Your task to perform on an android device: Open Youtube and go to the subscriptions tab Image 0: 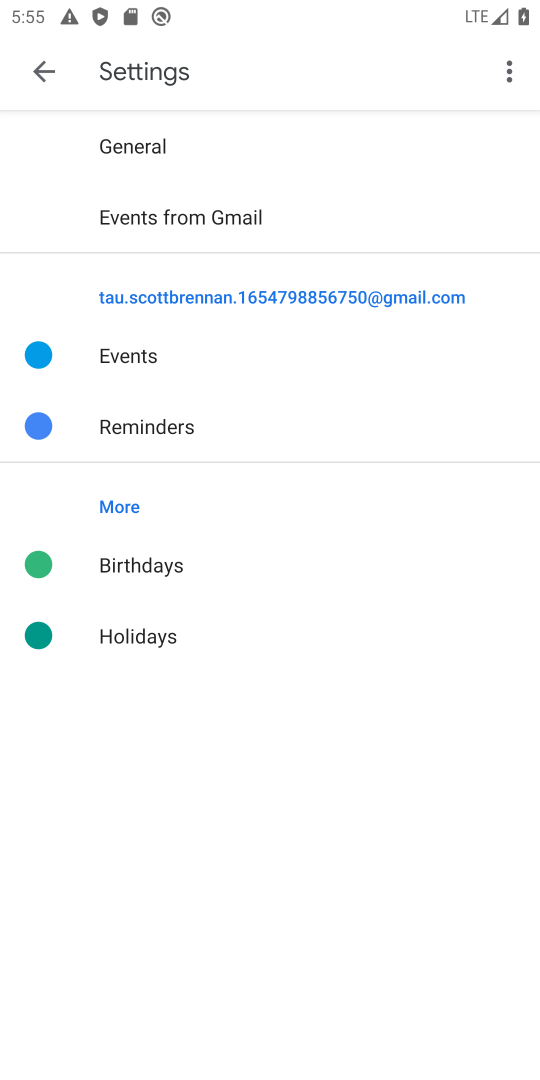
Step 0: press home button
Your task to perform on an android device: Open Youtube and go to the subscriptions tab Image 1: 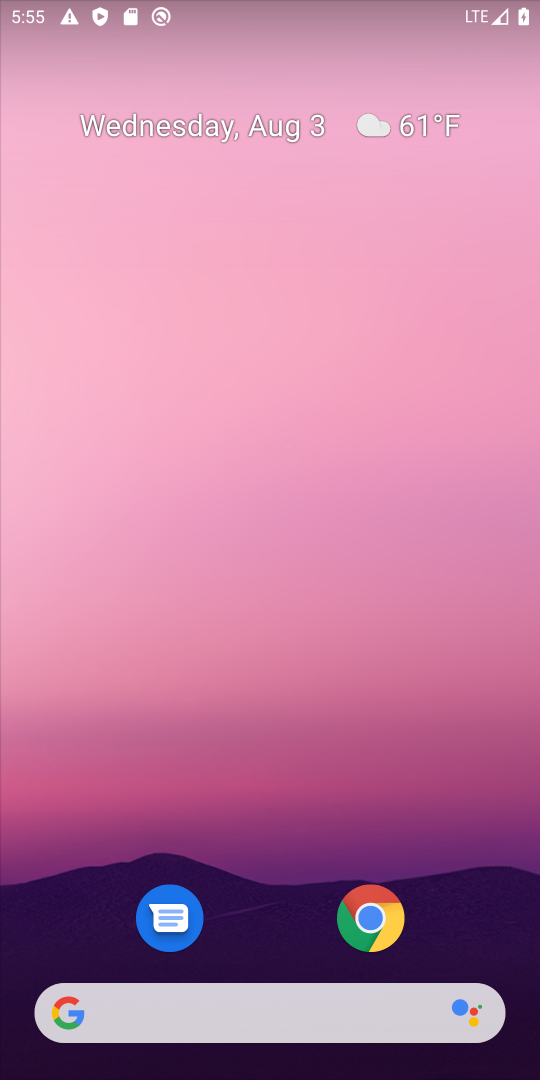
Step 1: drag from (182, 945) to (215, 292)
Your task to perform on an android device: Open Youtube and go to the subscriptions tab Image 2: 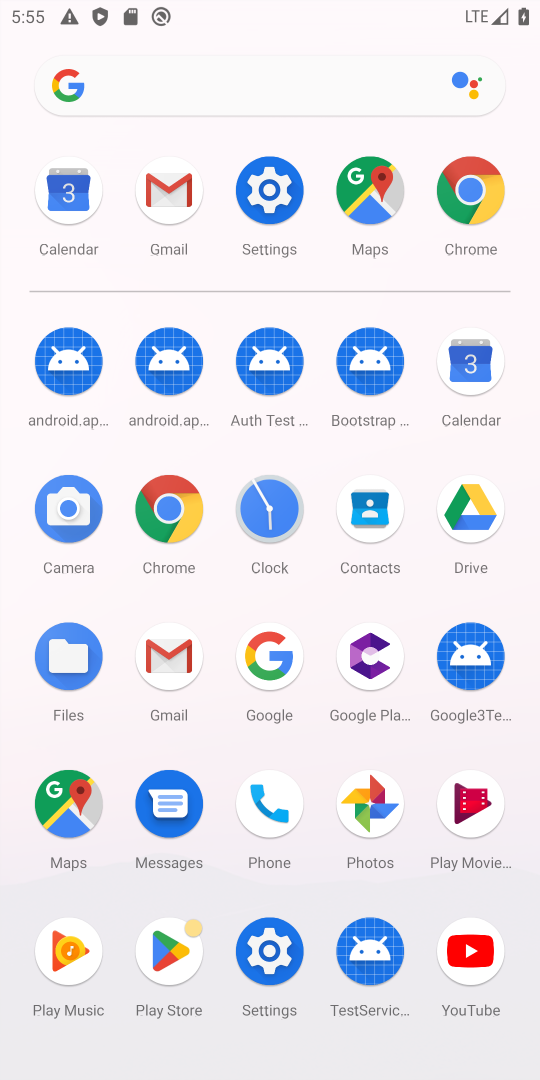
Step 2: click (462, 960)
Your task to perform on an android device: Open Youtube and go to the subscriptions tab Image 3: 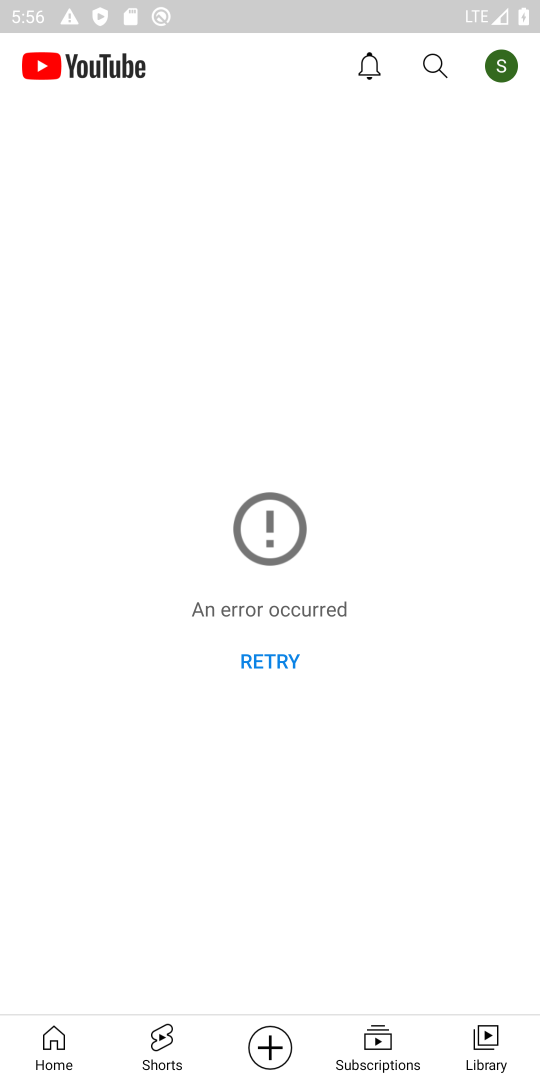
Step 3: click (379, 1024)
Your task to perform on an android device: Open Youtube and go to the subscriptions tab Image 4: 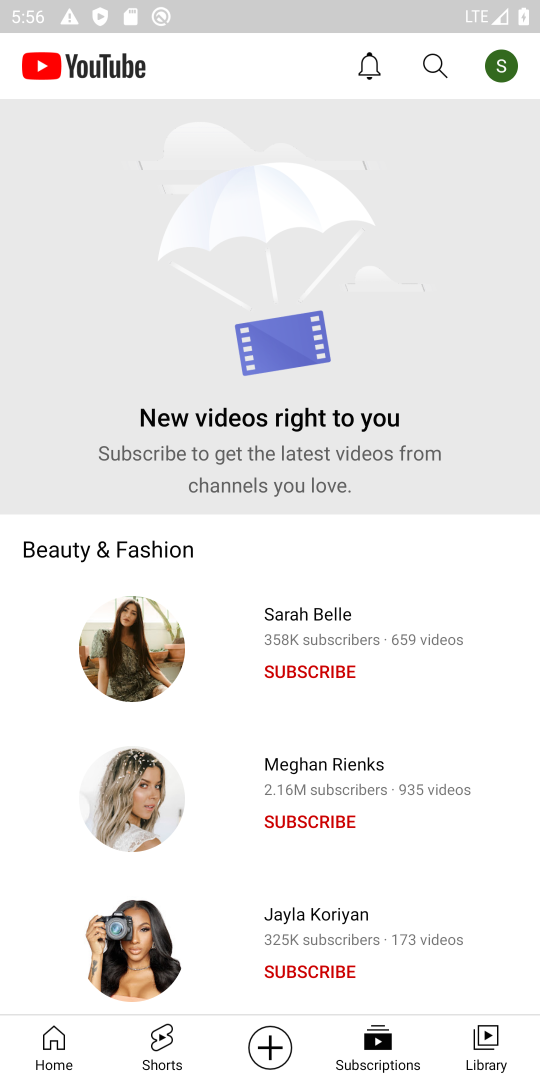
Step 4: task complete